Your task to perform on an android device: Search for Italian restaurants on Maps Image 0: 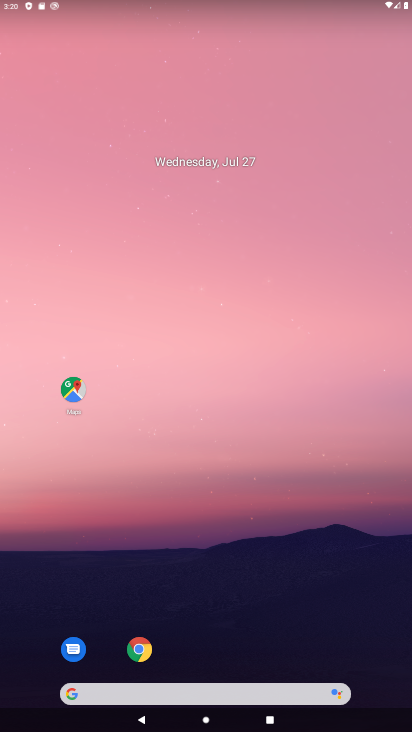
Step 0: click (72, 390)
Your task to perform on an android device: Search for Italian restaurants on Maps Image 1: 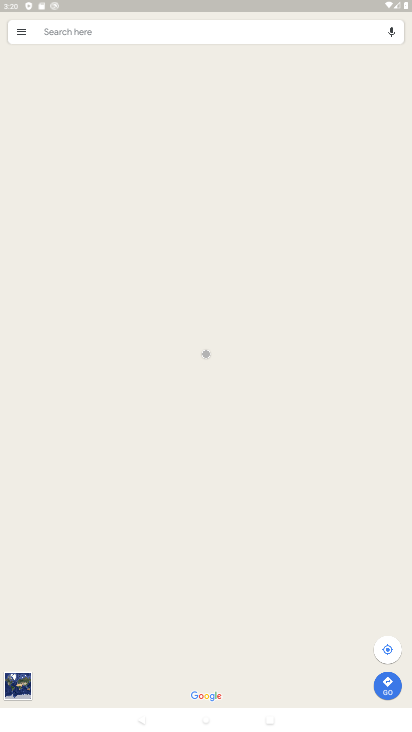
Step 1: click (78, 32)
Your task to perform on an android device: Search for Italian restaurants on Maps Image 2: 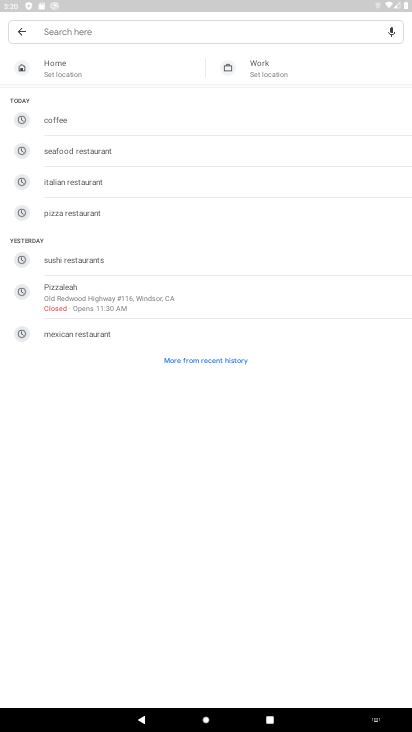
Step 2: type "italian restaurants"
Your task to perform on an android device: Search for Italian restaurants on Maps Image 3: 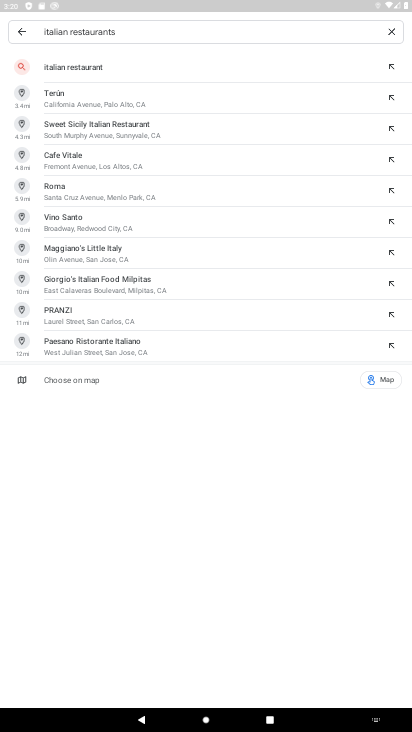
Step 3: click (66, 69)
Your task to perform on an android device: Search for Italian restaurants on Maps Image 4: 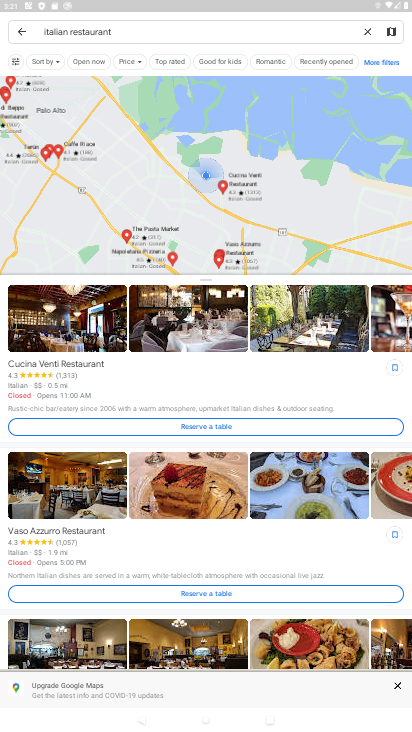
Step 4: task complete